Your task to perform on an android device: open app "DoorDash - Dasher" (install if not already installed) and enter user name: "resistor@inbox.com" and password: "cholera" Image 0: 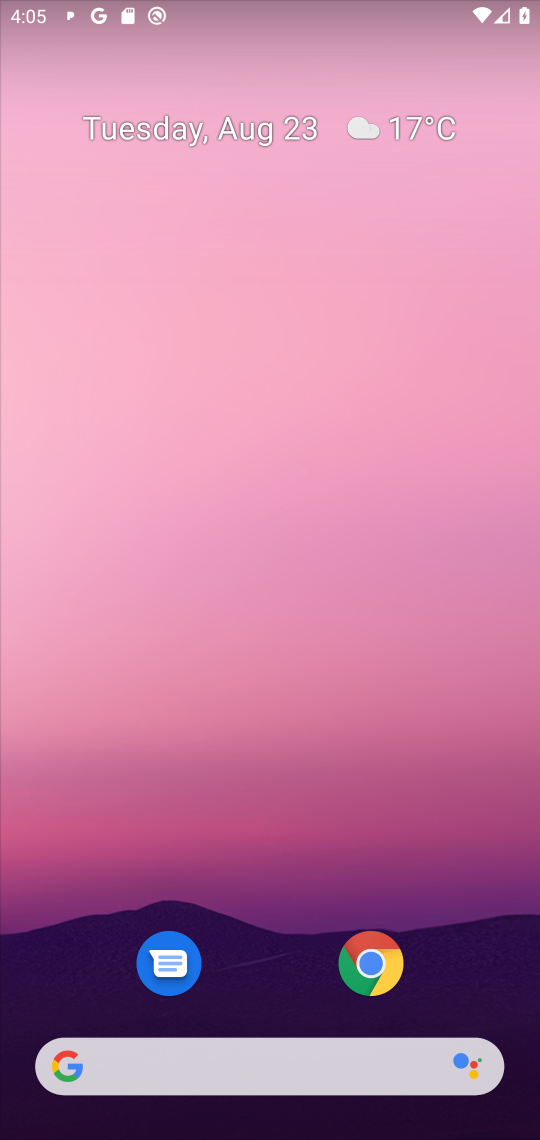
Step 0: press home button
Your task to perform on an android device: open app "DoorDash - Dasher" (install if not already installed) and enter user name: "resistor@inbox.com" and password: "cholera" Image 1: 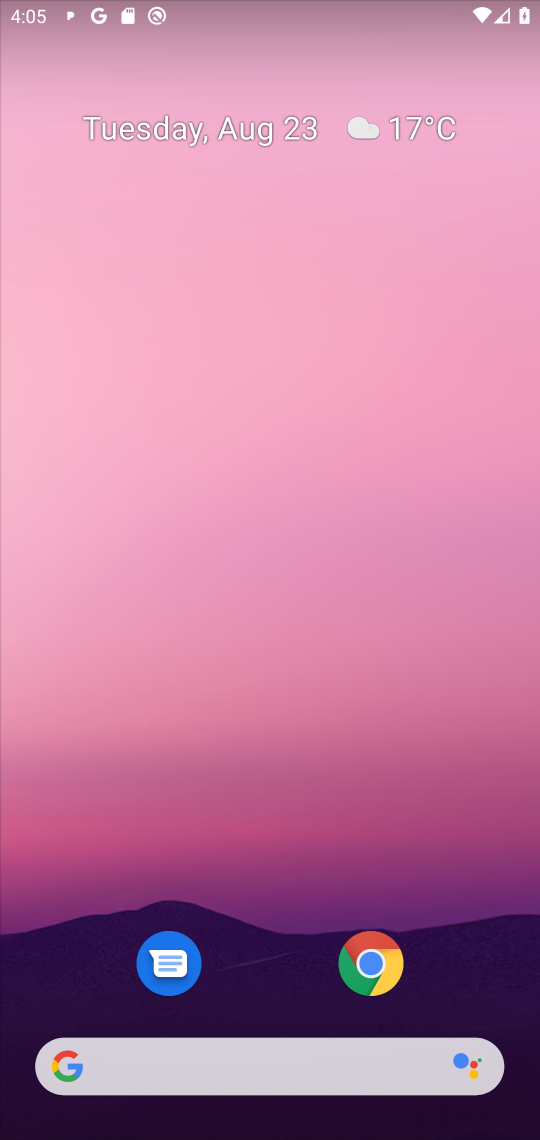
Step 1: drag from (266, 982) to (293, 147)
Your task to perform on an android device: open app "DoorDash - Dasher" (install if not already installed) and enter user name: "resistor@inbox.com" and password: "cholera" Image 2: 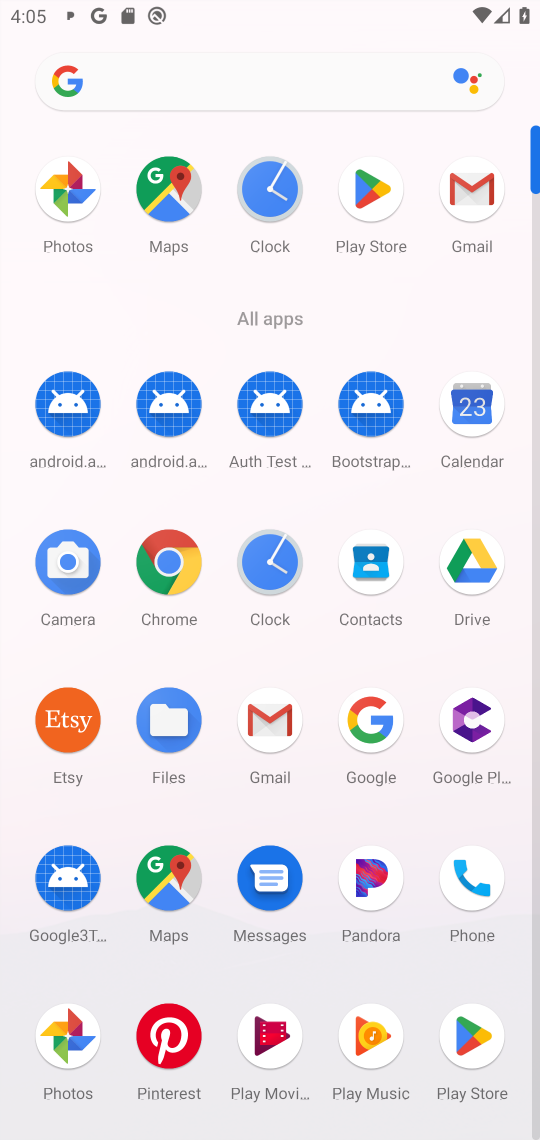
Step 2: click (369, 186)
Your task to perform on an android device: open app "DoorDash - Dasher" (install if not already installed) and enter user name: "resistor@inbox.com" and password: "cholera" Image 3: 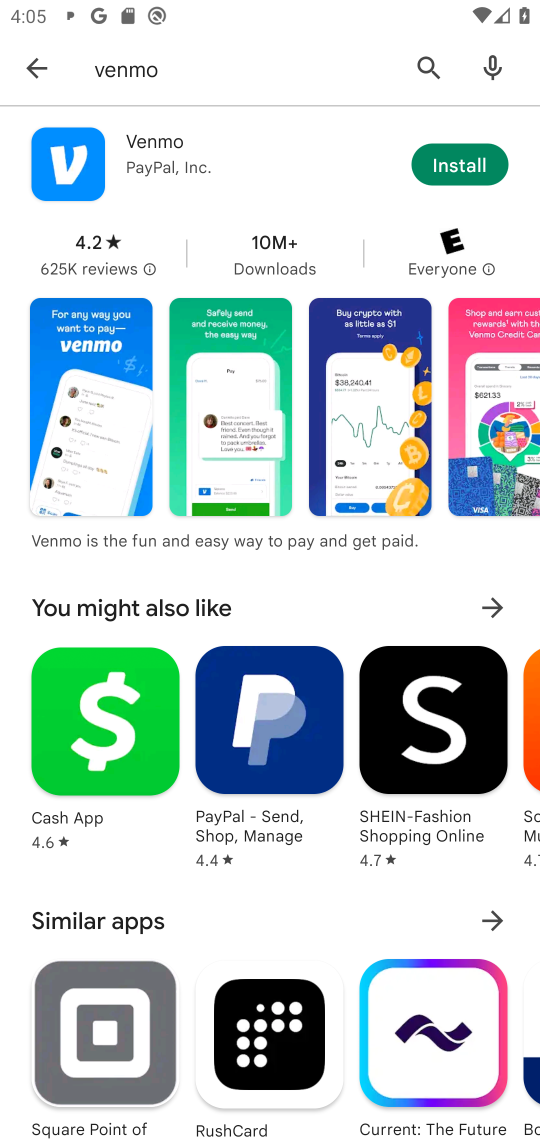
Step 3: click (420, 91)
Your task to perform on an android device: open app "DoorDash - Dasher" (install if not already installed) and enter user name: "resistor@inbox.com" and password: "cholera" Image 4: 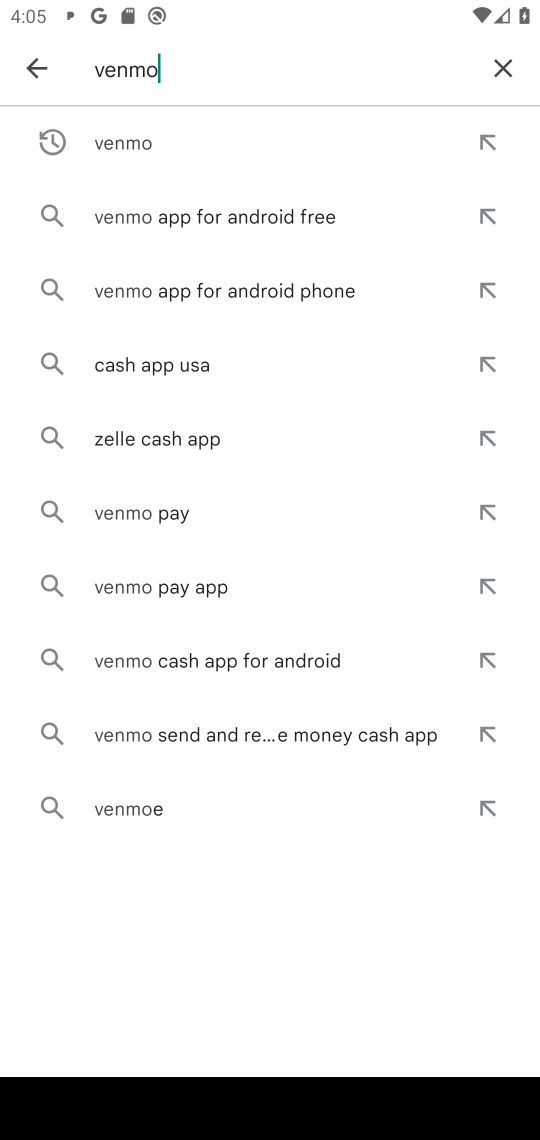
Step 4: click (512, 66)
Your task to perform on an android device: open app "DoorDash - Dasher" (install if not already installed) and enter user name: "resistor@inbox.com" and password: "cholera" Image 5: 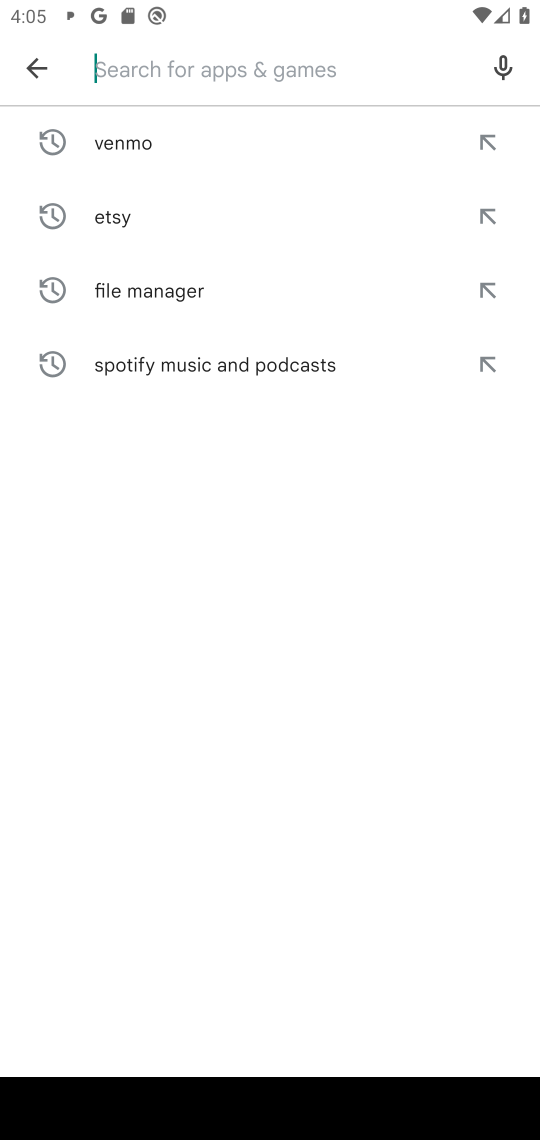
Step 5: type "DoorDash - Dasher"
Your task to perform on an android device: open app "DoorDash - Dasher" (install if not already installed) and enter user name: "resistor@inbox.com" and password: "cholera" Image 6: 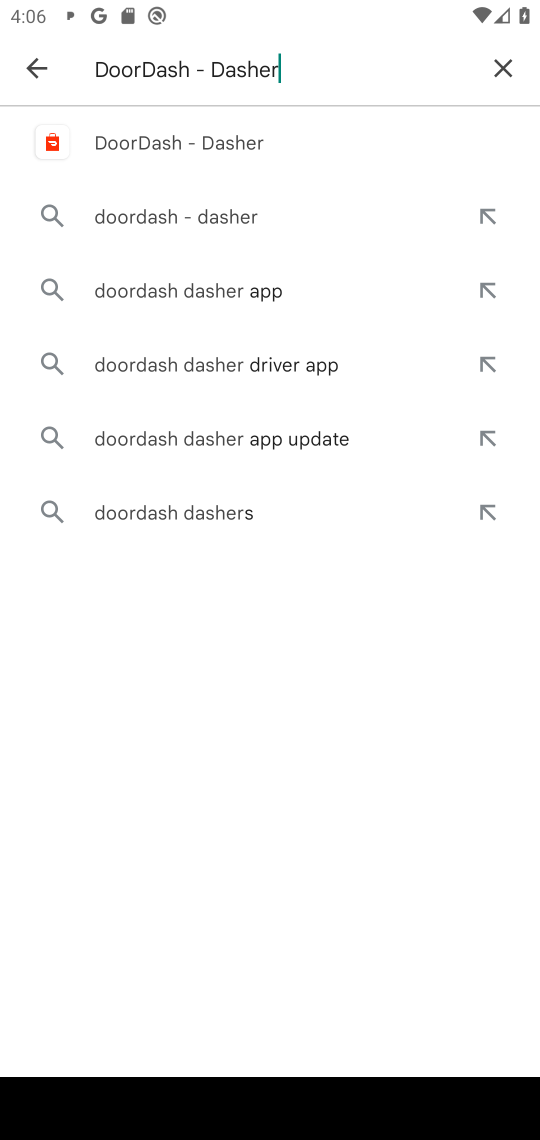
Step 6: click (150, 153)
Your task to perform on an android device: open app "DoorDash - Dasher" (install if not already installed) and enter user name: "resistor@inbox.com" and password: "cholera" Image 7: 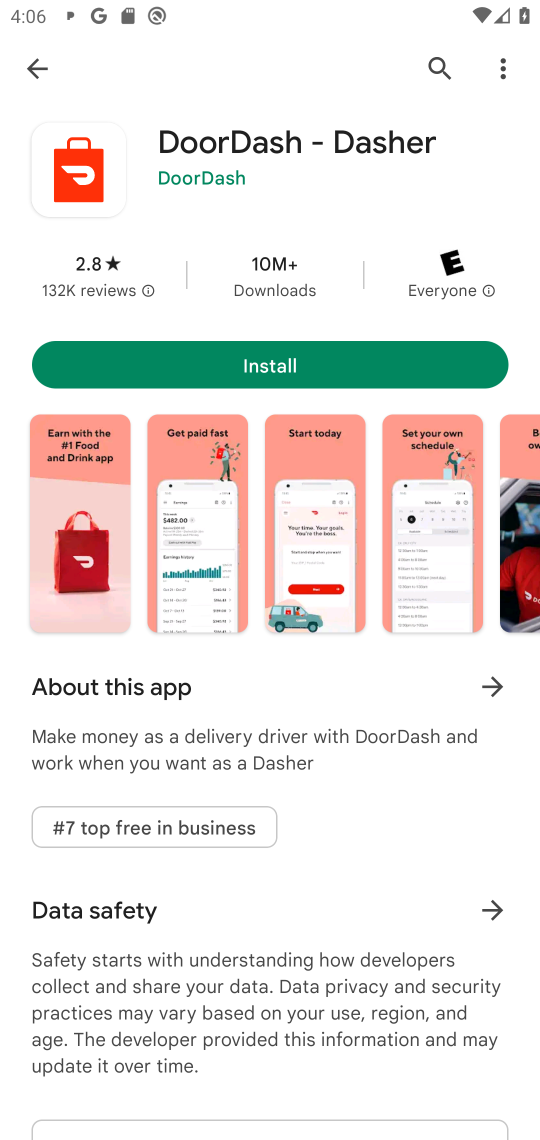
Step 7: click (302, 358)
Your task to perform on an android device: open app "DoorDash - Dasher" (install if not already installed) and enter user name: "resistor@inbox.com" and password: "cholera" Image 8: 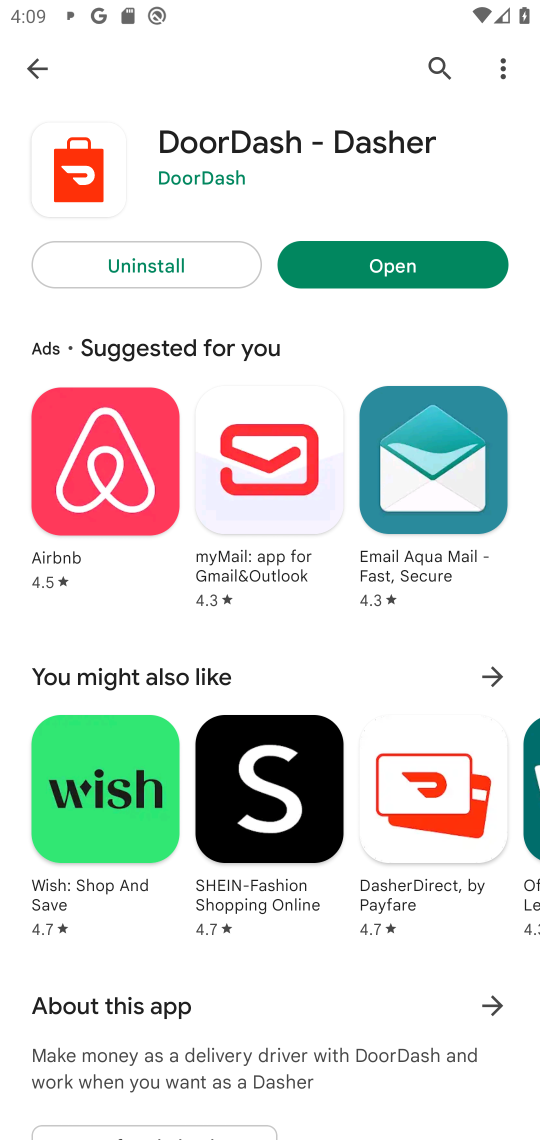
Step 8: click (386, 255)
Your task to perform on an android device: open app "DoorDash - Dasher" (install if not already installed) and enter user name: "resistor@inbox.com" and password: "cholera" Image 9: 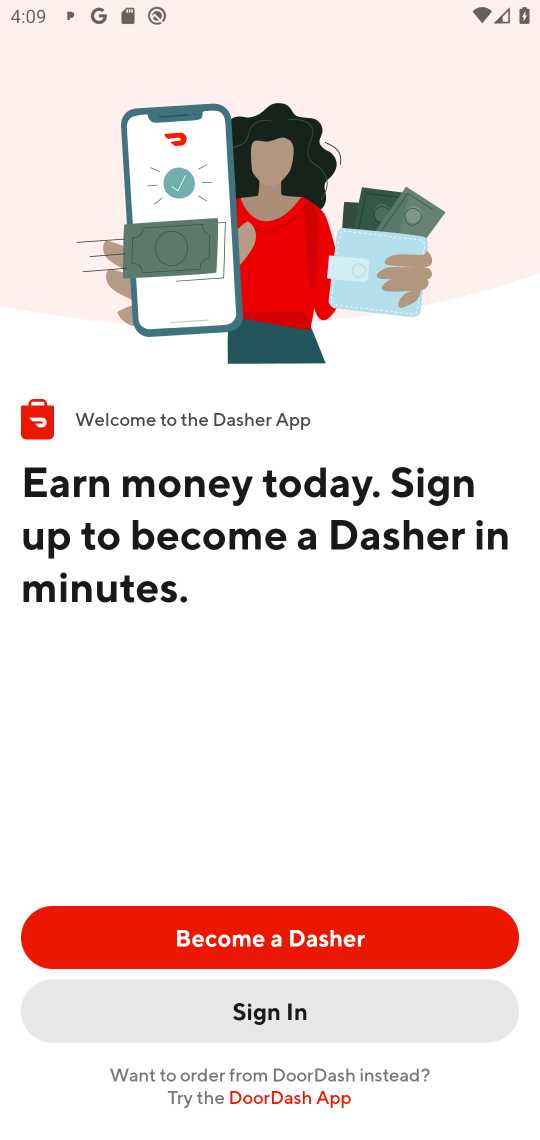
Step 9: click (289, 943)
Your task to perform on an android device: open app "DoorDash - Dasher" (install if not already installed) and enter user name: "resistor@inbox.com" and password: "cholera" Image 10: 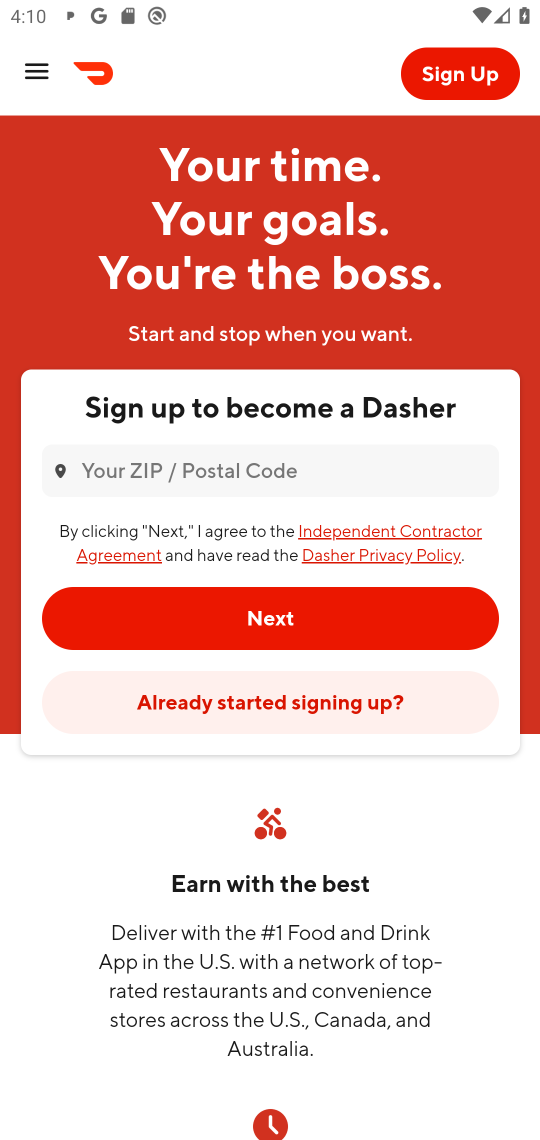
Step 10: task complete